Your task to perform on an android device: Go to Google Image 0: 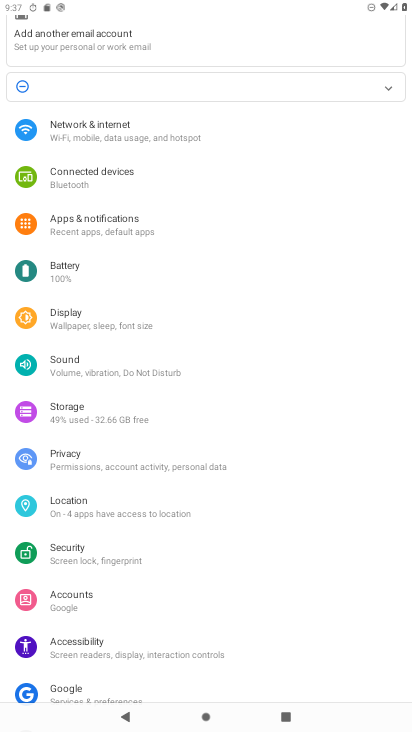
Step 0: press home button
Your task to perform on an android device: Go to Google Image 1: 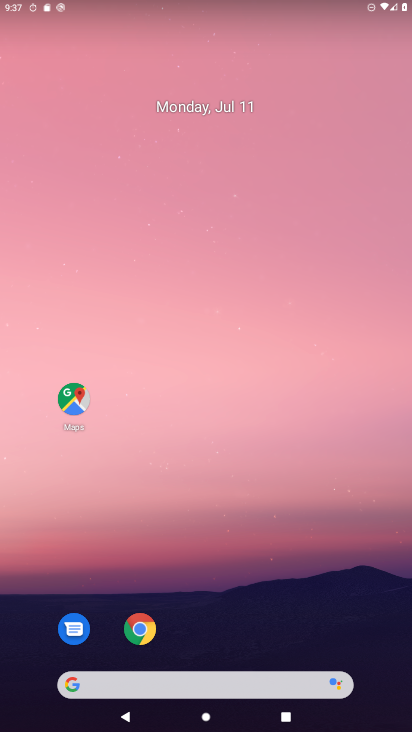
Step 1: click (259, 684)
Your task to perform on an android device: Go to Google Image 2: 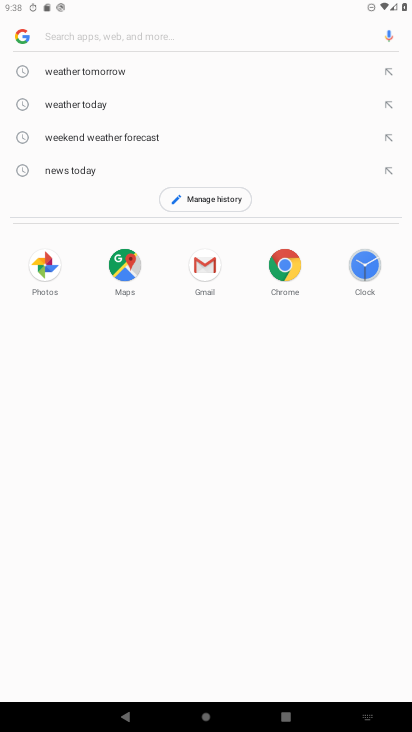
Step 2: task complete